Your task to perform on an android device: set an alarm Image 0: 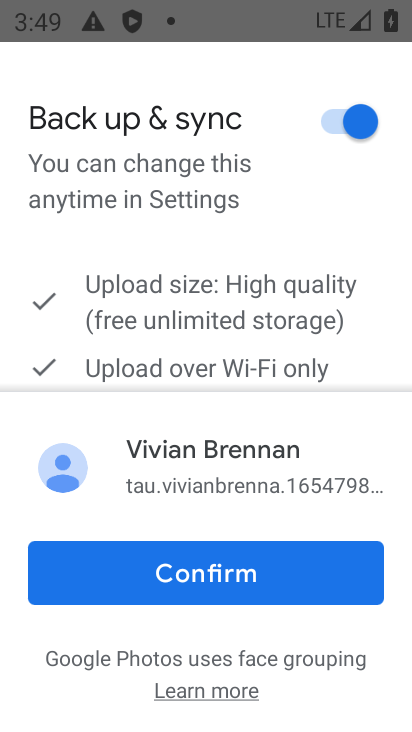
Step 0: press home button
Your task to perform on an android device: set an alarm Image 1: 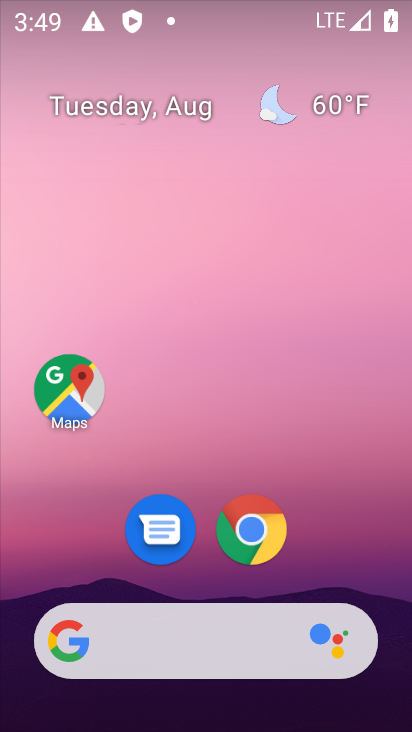
Step 1: drag from (359, 495) to (388, 10)
Your task to perform on an android device: set an alarm Image 2: 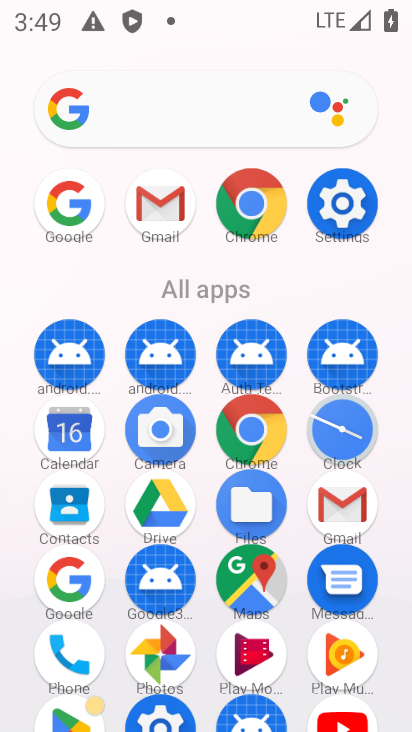
Step 2: click (352, 441)
Your task to perform on an android device: set an alarm Image 3: 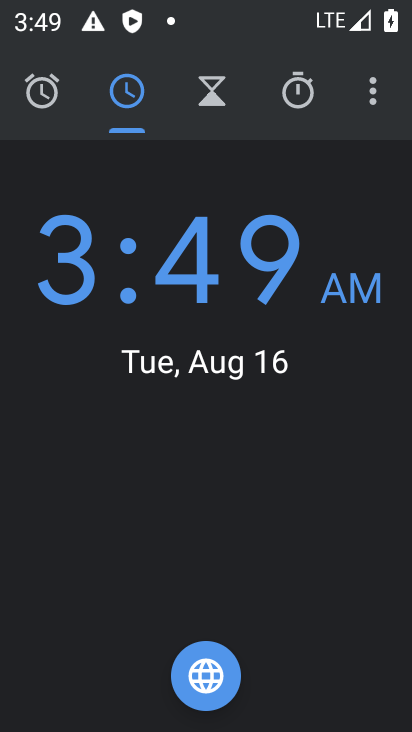
Step 3: click (37, 97)
Your task to perform on an android device: set an alarm Image 4: 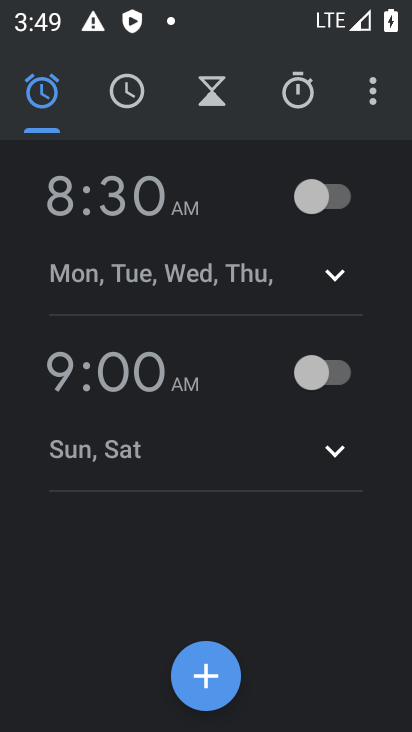
Step 4: click (326, 209)
Your task to perform on an android device: set an alarm Image 5: 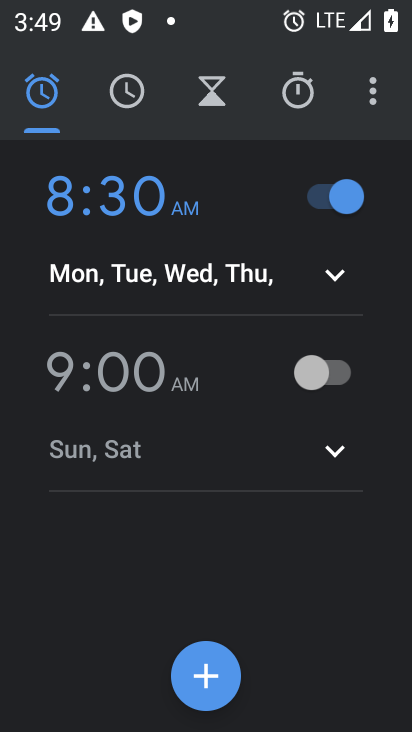
Step 5: task complete